Your task to perform on an android device: Open the stopwatch Image 0: 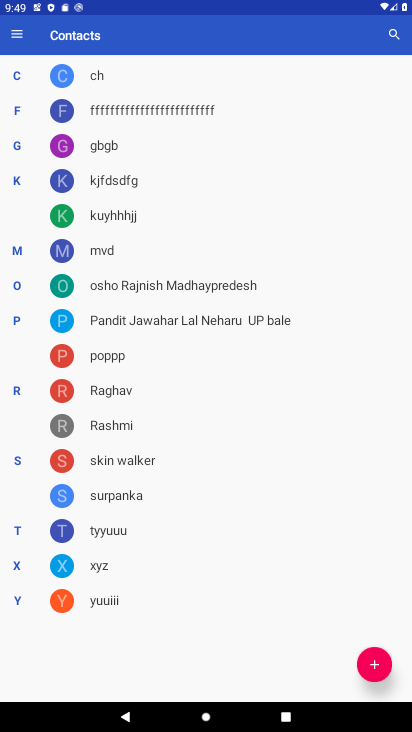
Step 0: press home button
Your task to perform on an android device: Open the stopwatch Image 1: 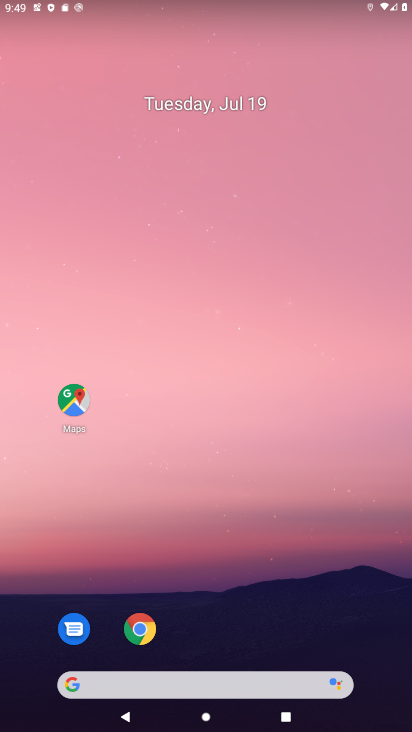
Step 1: drag from (212, 645) to (200, 9)
Your task to perform on an android device: Open the stopwatch Image 2: 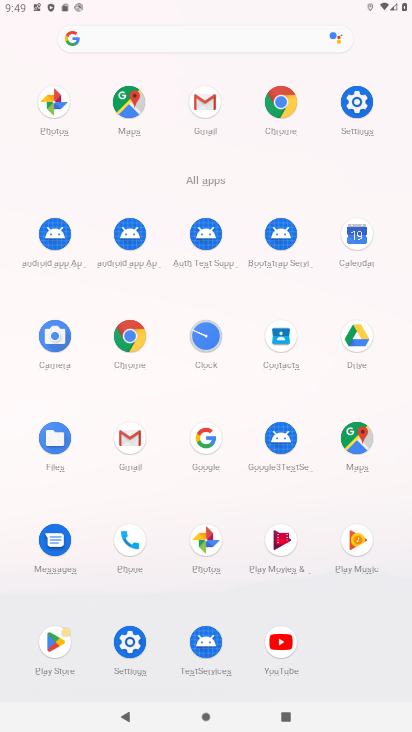
Step 2: click (190, 335)
Your task to perform on an android device: Open the stopwatch Image 3: 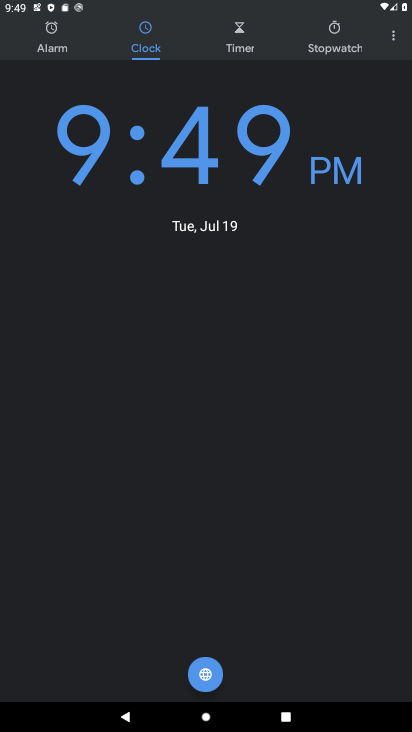
Step 3: click (341, 29)
Your task to perform on an android device: Open the stopwatch Image 4: 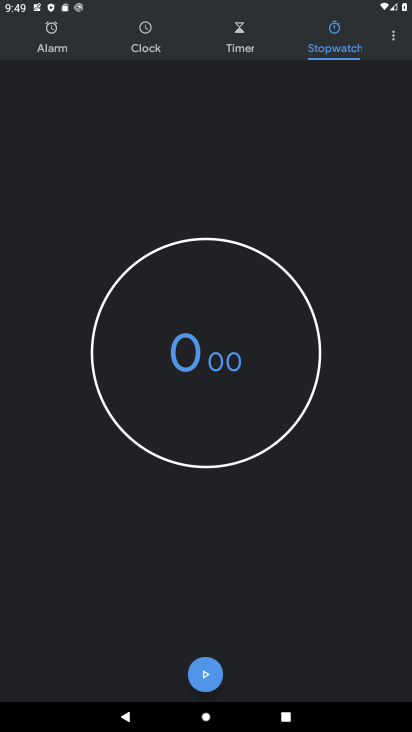
Step 4: click (199, 668)
Your task to perform on an android device: Open the stopwatch Image 5: 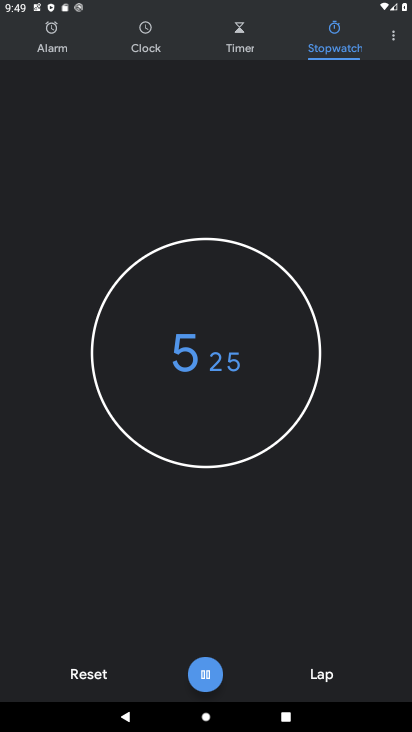
Step 5: task complete